Your task to perform on an android device: Open privacy settings Image 0: 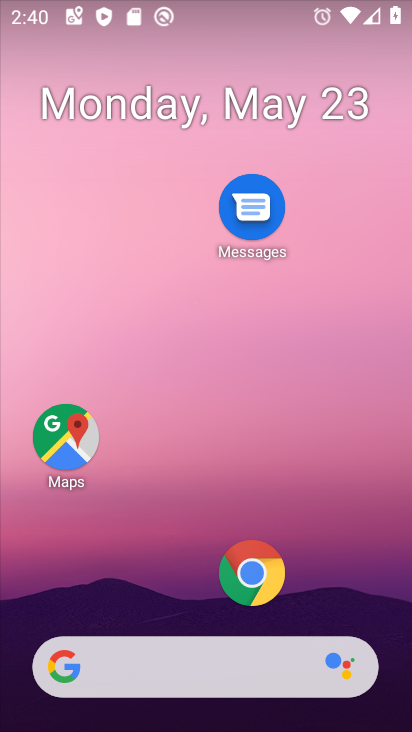
Step 0: drag from (324, 545) to (352, 2)
Your task to perform on an android device: Open privacy settings Image 1: 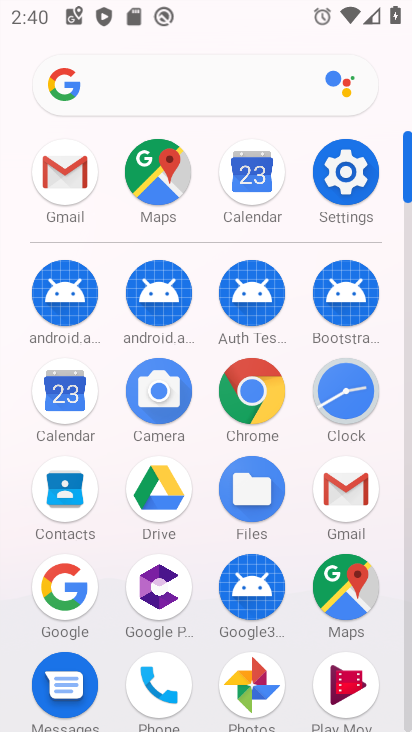
Step 1: click (350, 187)
Your task to perform on an android device: Open privacy settings Image 2: 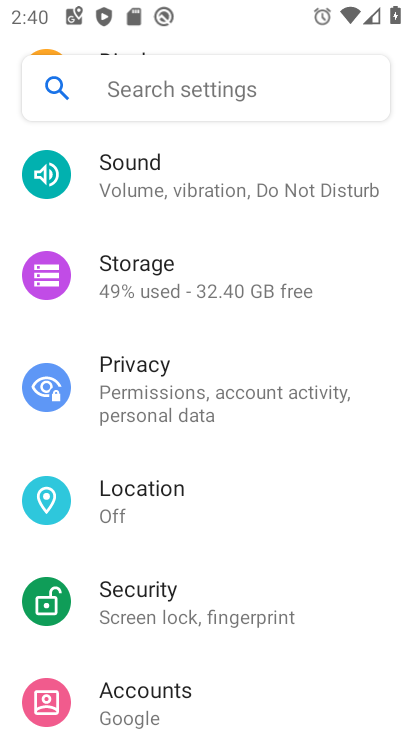
Step 2: click (216, 371)
Your task to perform on an android device: Open privacy settings Image 3: 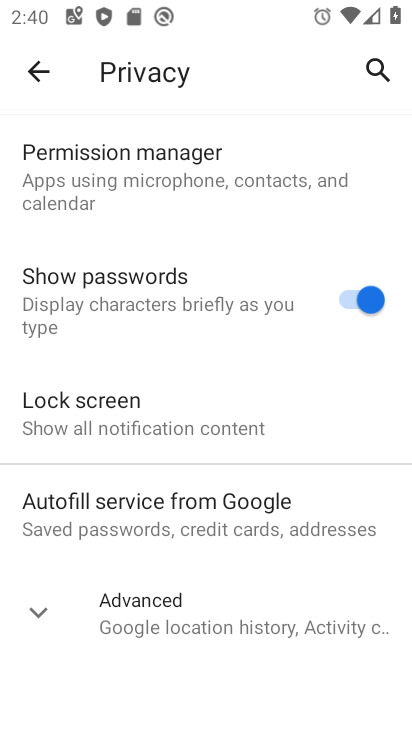
Step 3: task complete